Your task to perform on an android device: Open Youtube and go to the subscriptions tab Image 0: 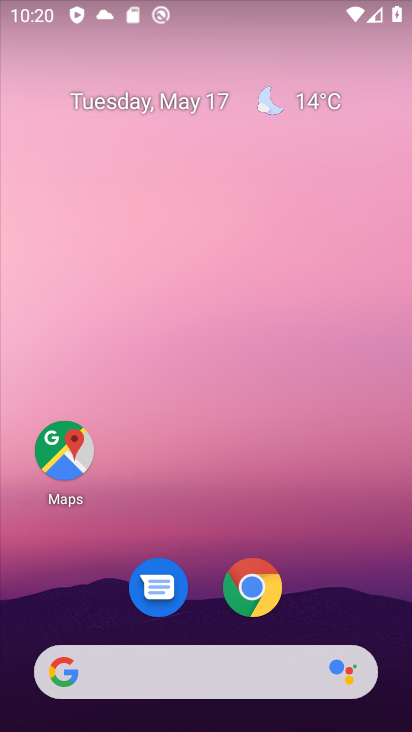
Step 0: drag from (356, 626) to (311, 161)
Your task to perform on an android device: Open Youtube and go to the subscriptions tab Image 1: 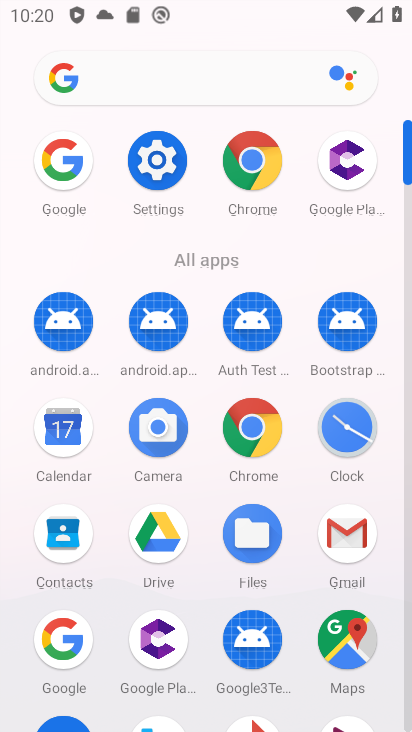
Step 1: drag from (194, 585) to (208, 275)
Your task to perform on an android device: Open Youtube and go to the subscriptions tab Image 2: 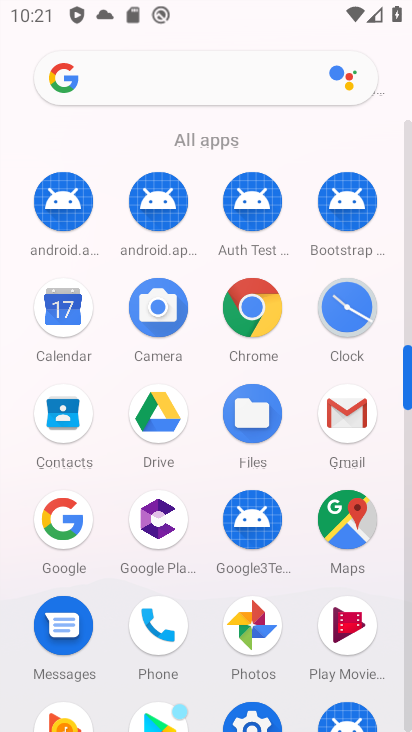
Step 2: drag from (206, 598) to (175, 164)
Your task to perform on an android device: Open Youtube and go to the subscriptions tab Image 3: 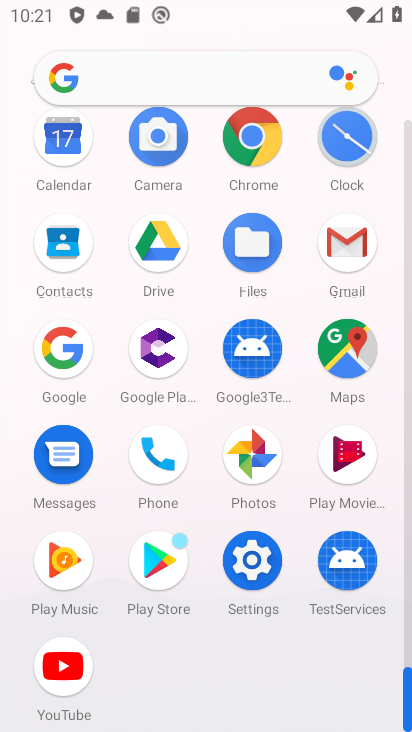
Step 3: click (67, 649)
Your task to perform on an android device: Open Youtube and go to the subscriptions tab Image 4: 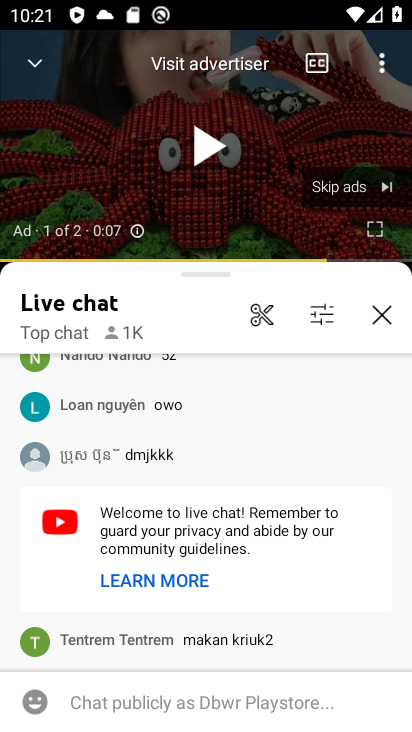
Step 4: click (43, 66)
Your task to perform on an android device: Open Youtube and go to the subscriptions tab Image 5: 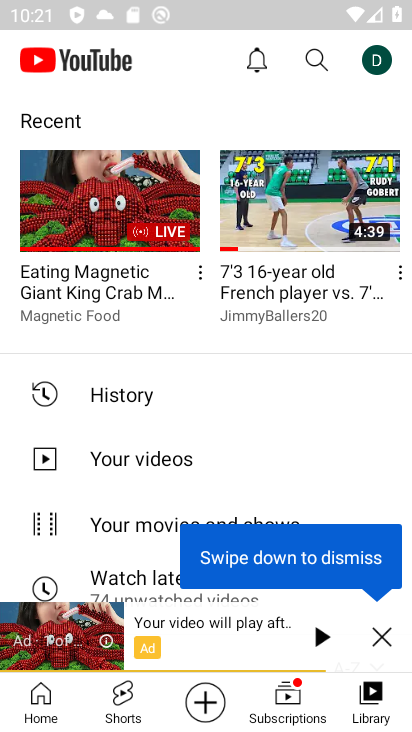
Step 5: click (379, 631)
Your task to perform on an android device: Open Youtube and go to the subscriptions tab Image 6: 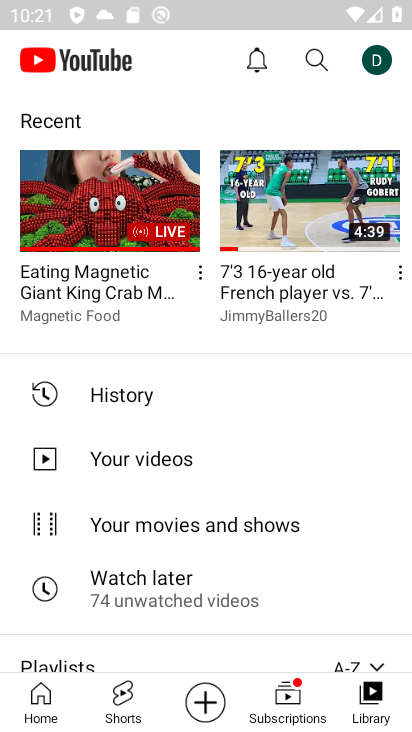
Step 6: click (296, 693)
Your task to perform on an android device: Open Youtube and go to the subscriptions tab Image 7: 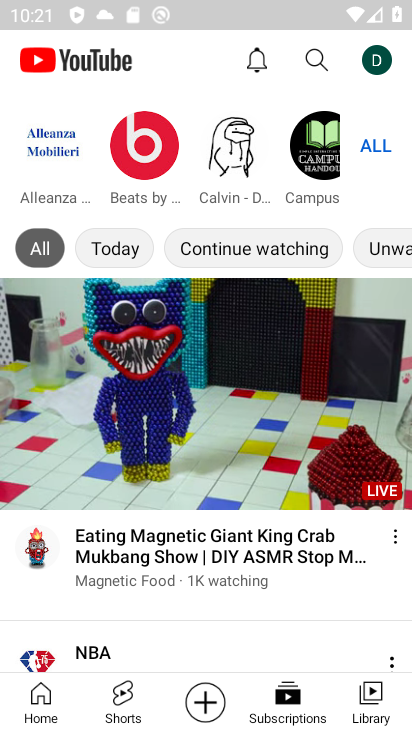
Step 7: task complete